Your task to perform on an android device: delete browsing data in the chrome app Image 0: 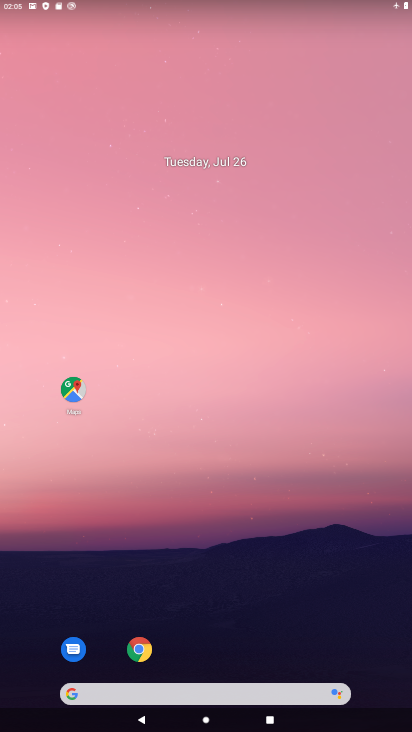
Step 0: click (137, 649)
Your task to perform on an android device: delete browsing data in the chrome app Image 1: 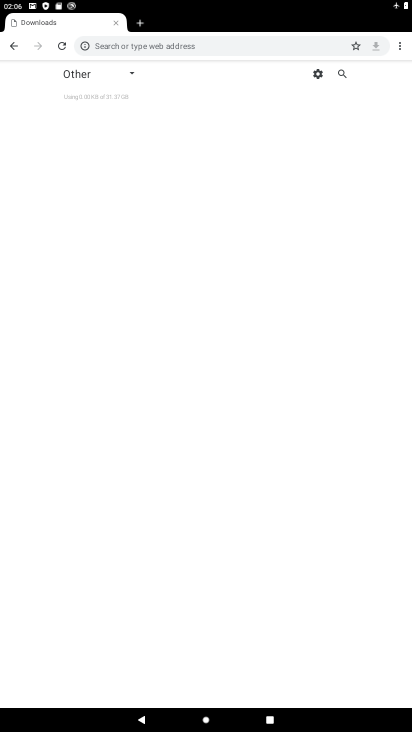
Step 1: click (400, 44)
Your task to perform on an android device: delete browsing data in the chrome app Image 2: 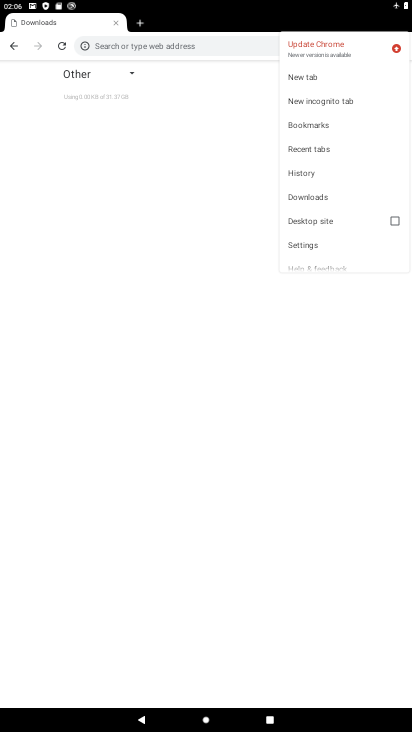
Step 2: click (307, 244)
Your task to perform on an android device: delete browsing data in the chrome app Image 3: 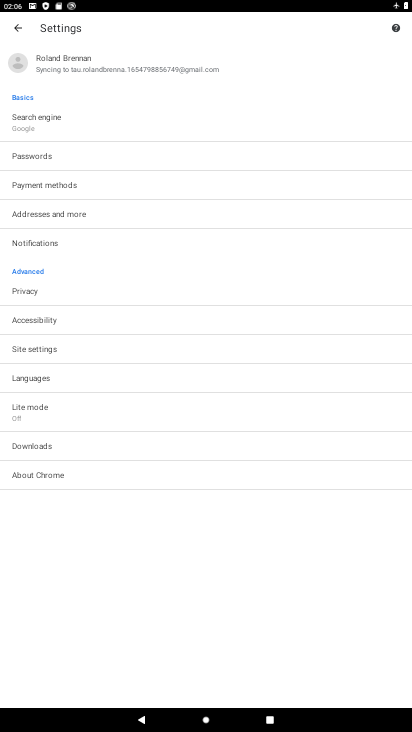
Step 3: click (27, 291)
Your task to perform on an android device: delete browsing data in the chrome app Image 4: 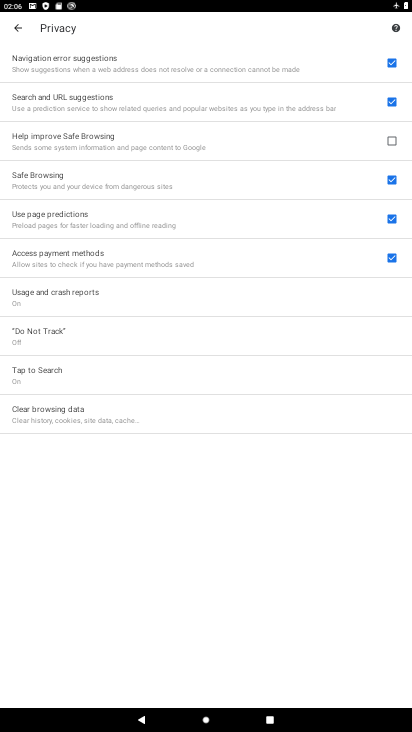
Step 4: click (64, 413)
Your task to perform on an android device: delete browsing data in the chrome app Image 5: 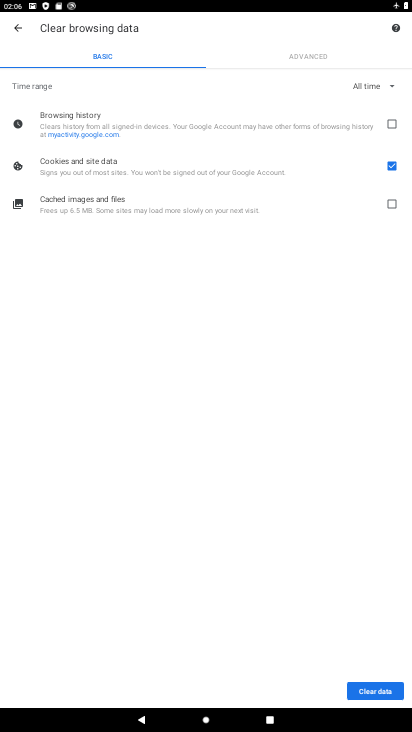
Step 5: click (392, 123)
Your task to perform on an android device: delete browsing data in the chrome app Image 6: 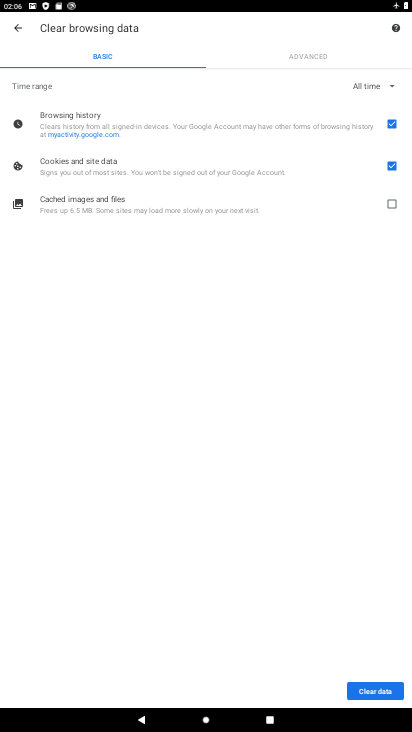
Step 6: click (392, 207)
Your task to perform on an android device: delete browsing data in the chrome app Image 7: 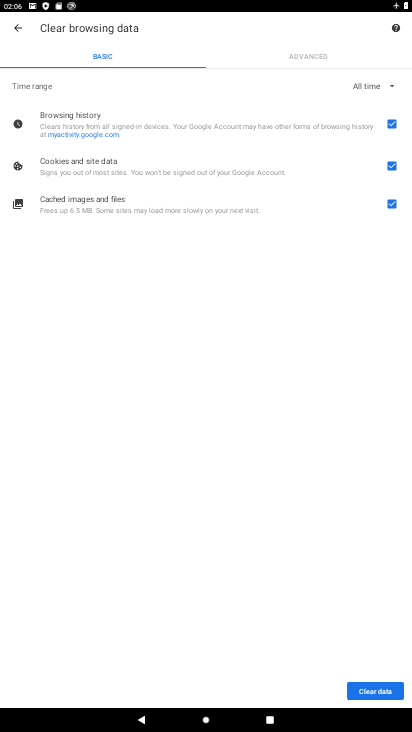
Step 7: click (374, 686)
Your task to perform on an android device: delete browsing data in the chrome app Image 8: 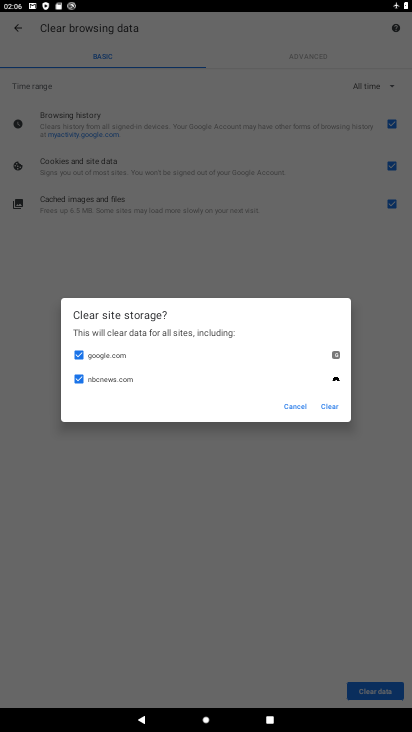
Step 8: click (329, 404)
Your task to perform on an android device: delete browsing data in the chrome app Image 9: 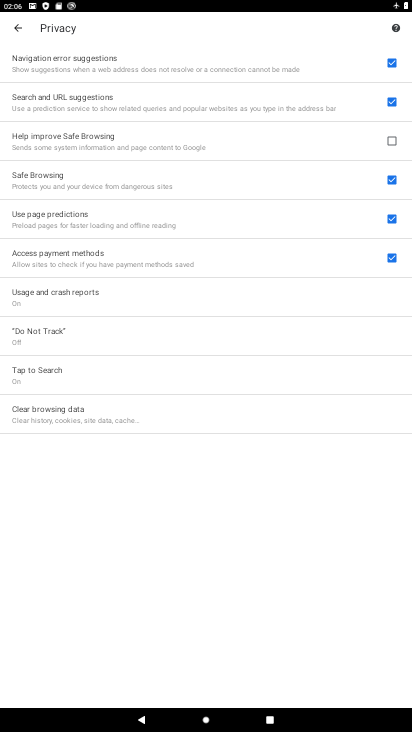
Step 9: task complete